Your task to perform on an android device: Add "macbook pro 13 inch" to the cart on costco, then select checkout. Image 0: 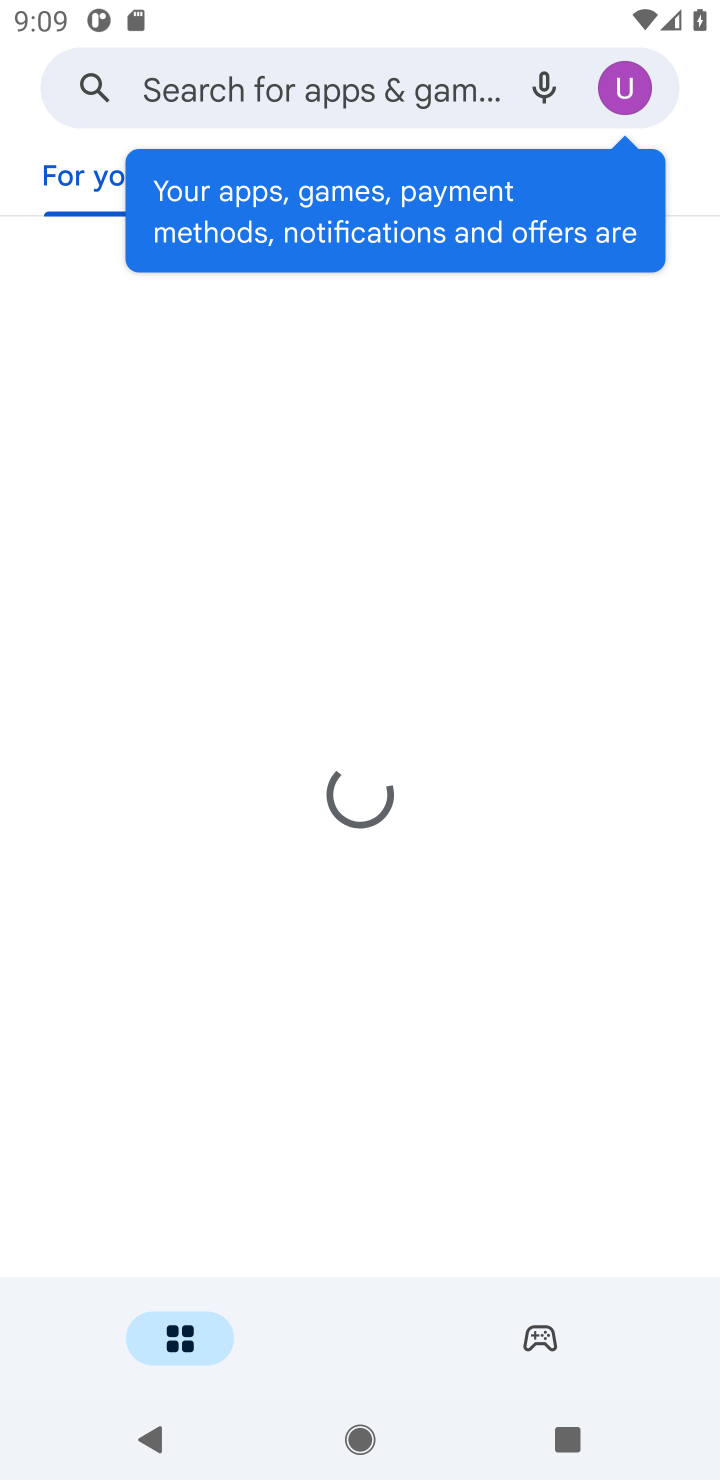
Step 0: press home button
Your task to perform on an android device: Add "macbook pro 13 inch" to the cart on costco, then select checkout. Image 1: 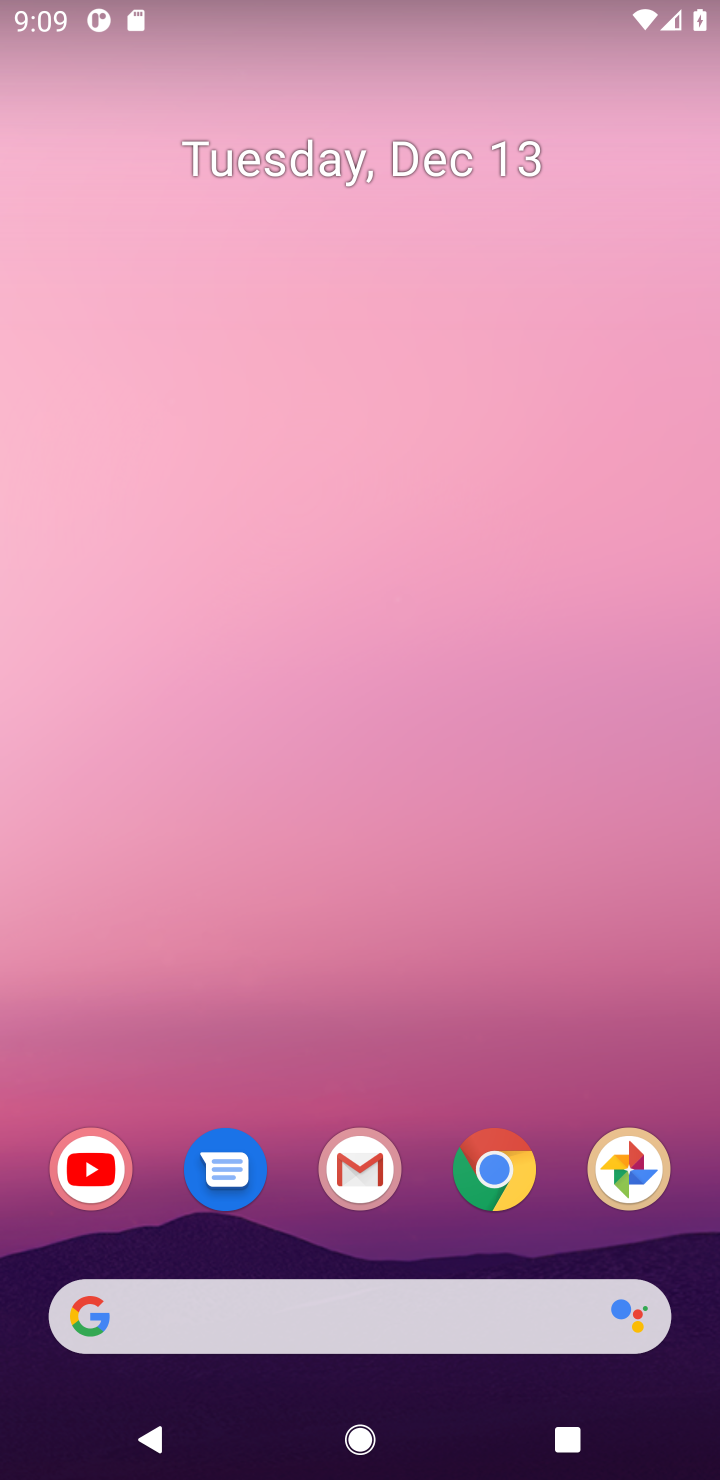
Step 1: click (487, 1190)
Your task to perform on an android device: Add "macbook pro 13 inch" to the cart on costco, then select checkout. Image 2: 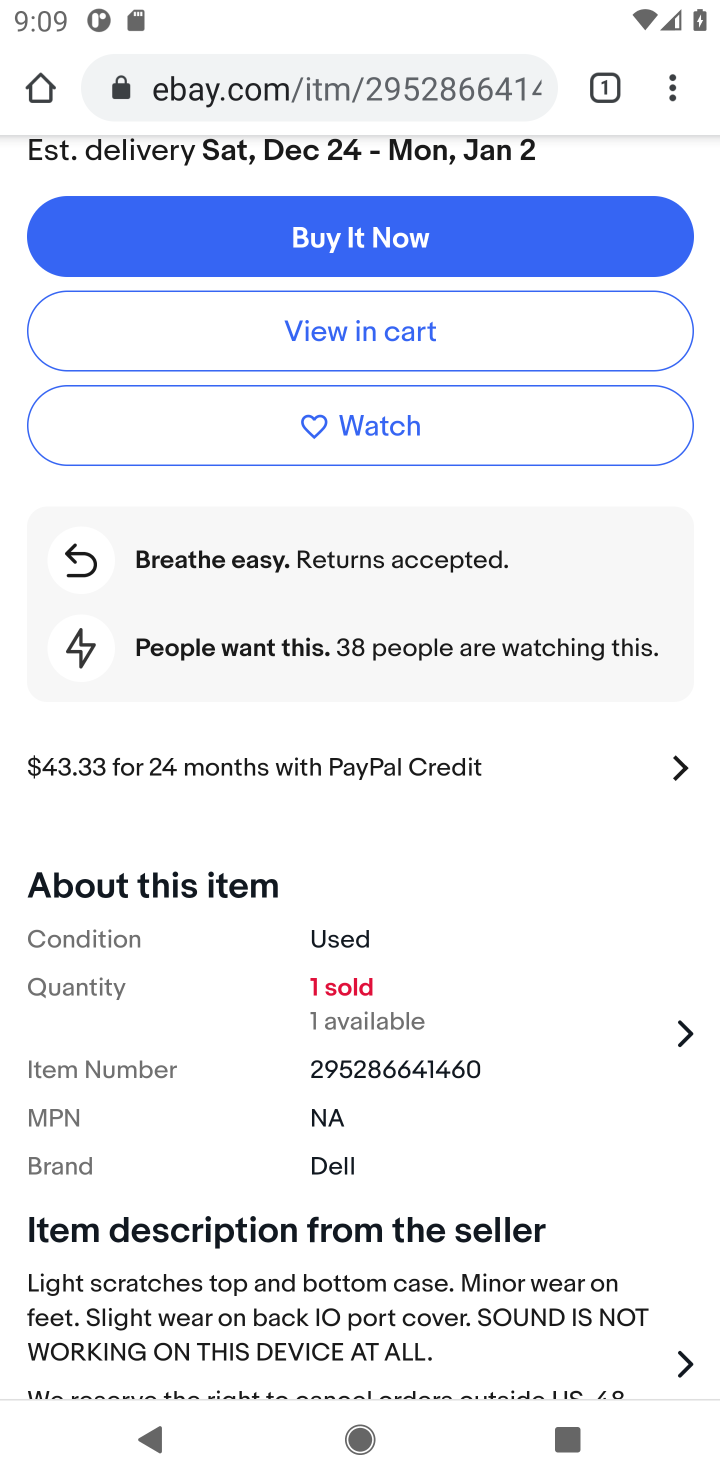
Step 2: click (252, 109)
Your task to perform on an android device: Add "macbook pro 13 inch" to the cart on costco, then select checkout. Image 3: 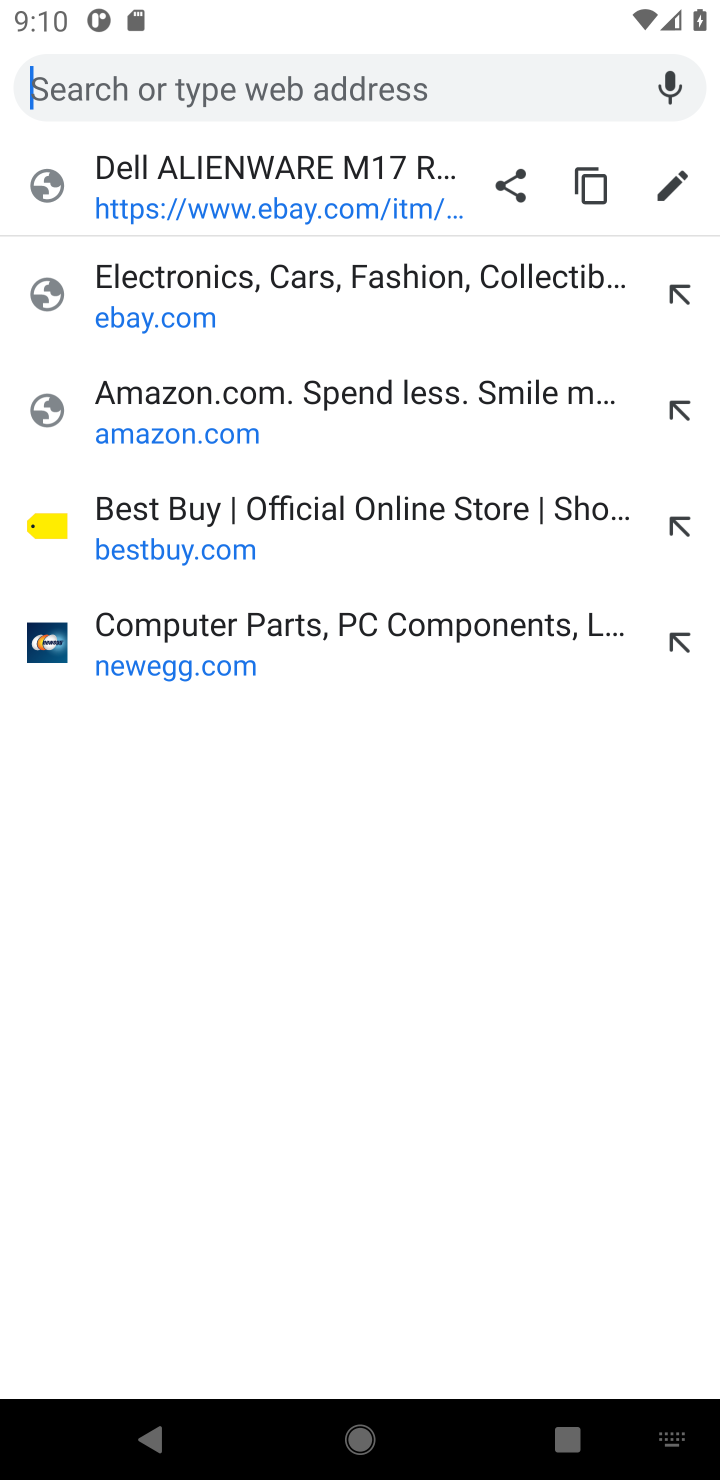
Step 3: type "costco"
Your task to perform on an android device: Add "macbook pro 13 inch" to the cart on costco, then select checkout. Image 4: 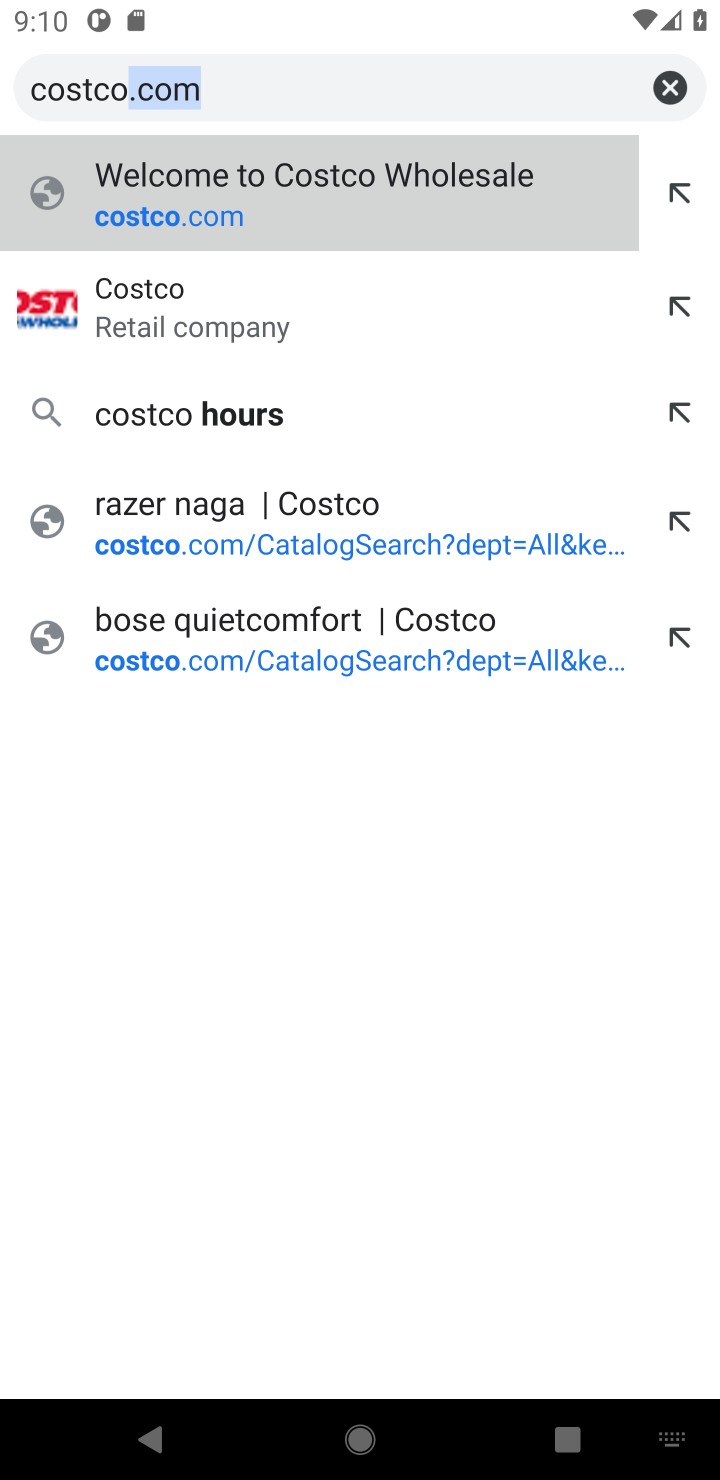
Step 4: click (274, 221)
Your task to perform on an android device: Add "macbook pro 13 inch" to the cart on costco, then select checkout. Image 5: 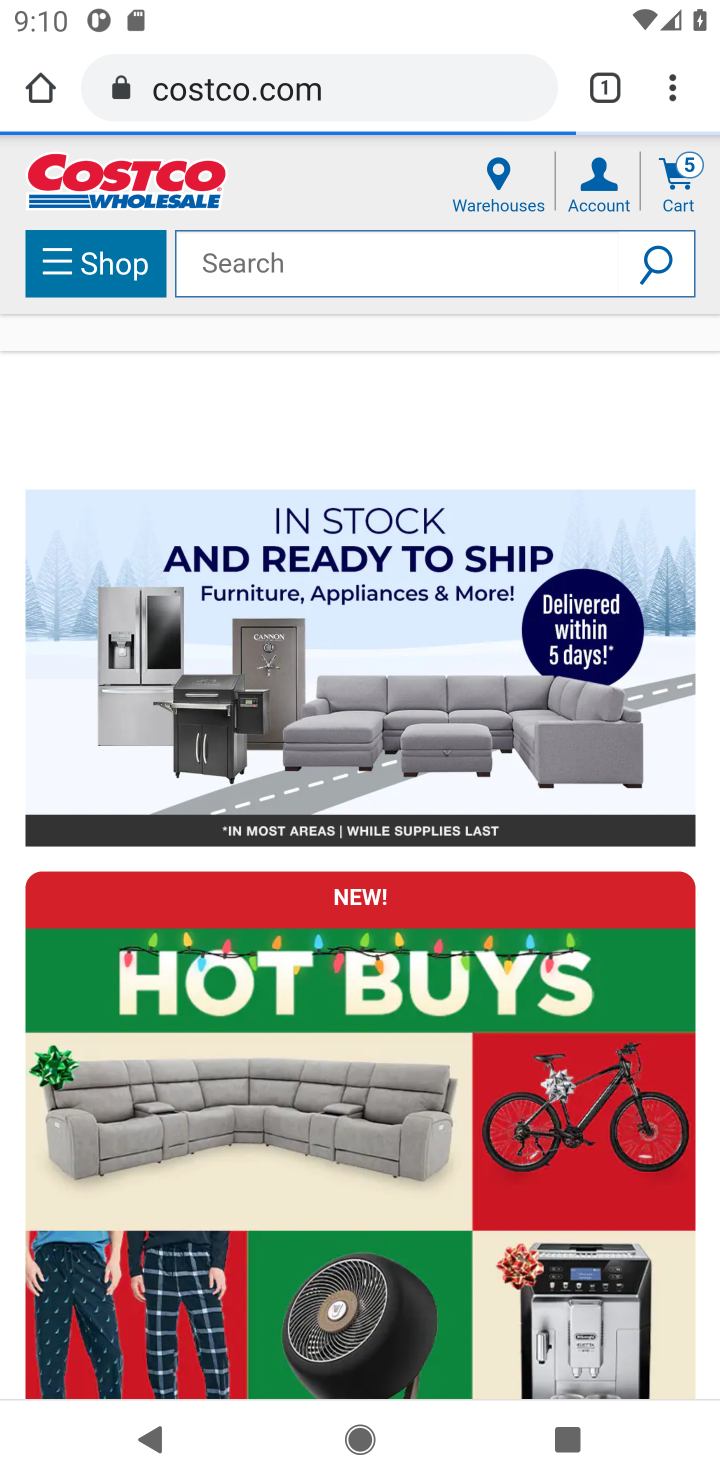
Step 5: click (391, 273)
Your task to perform on an android device: Add "macbook pro 13 inch" to the cart on costco, then select checkout. Image 6: 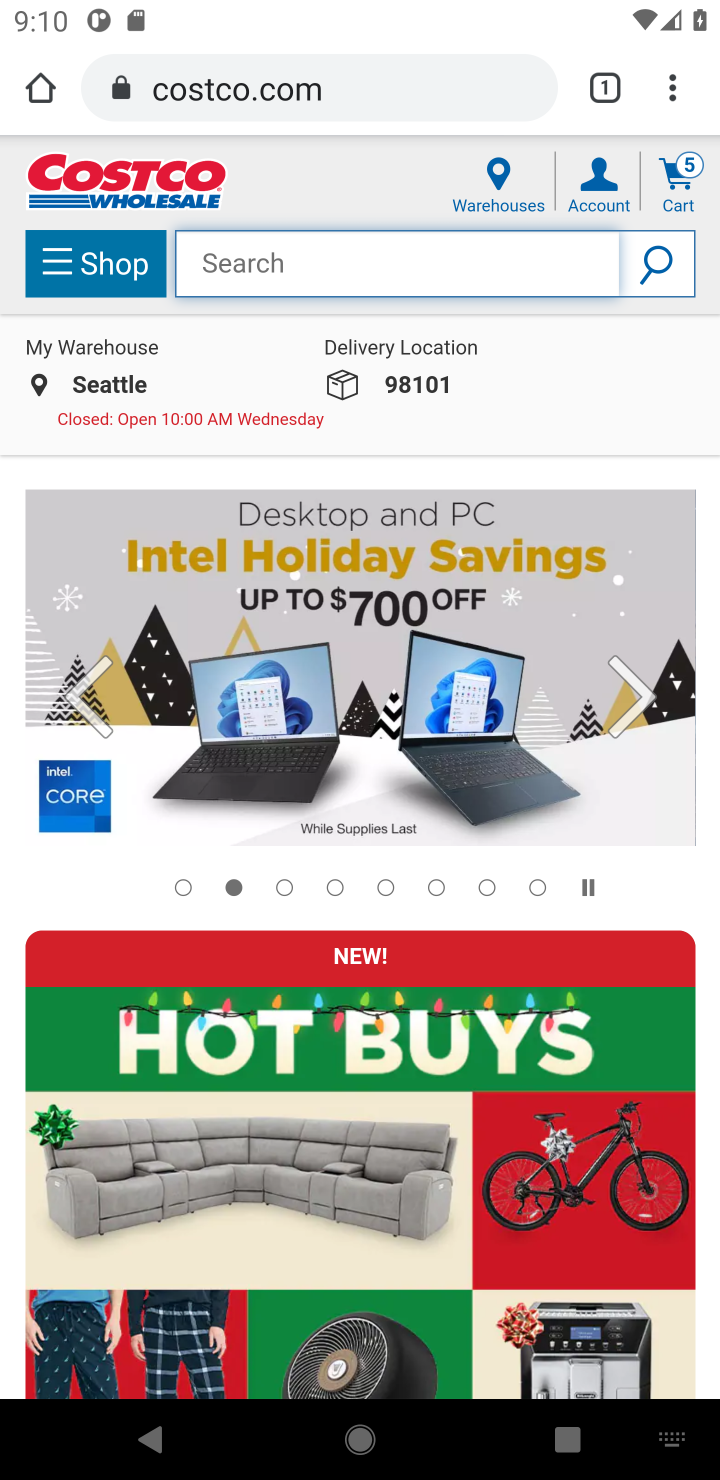
Step 6: type "macbook pro 13"
Your task to perform on an android device: Add "macbook pro 13 inch" to the cart on costco, then select checkout. Image 7: 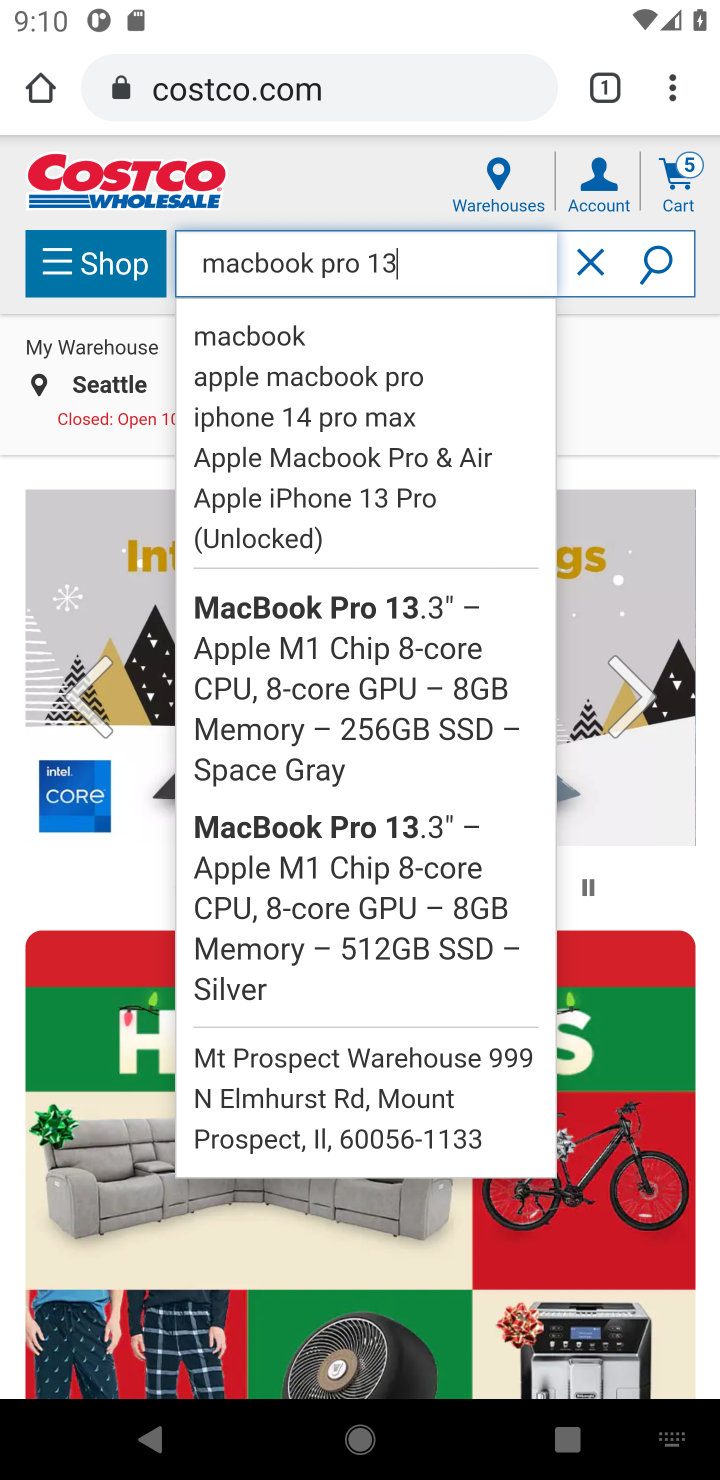
Step 7: click (641, 288)
Your task to perform on an android device: Add "macbook pro 13 inch" to the cart on costco, then select checkout. Image 8: 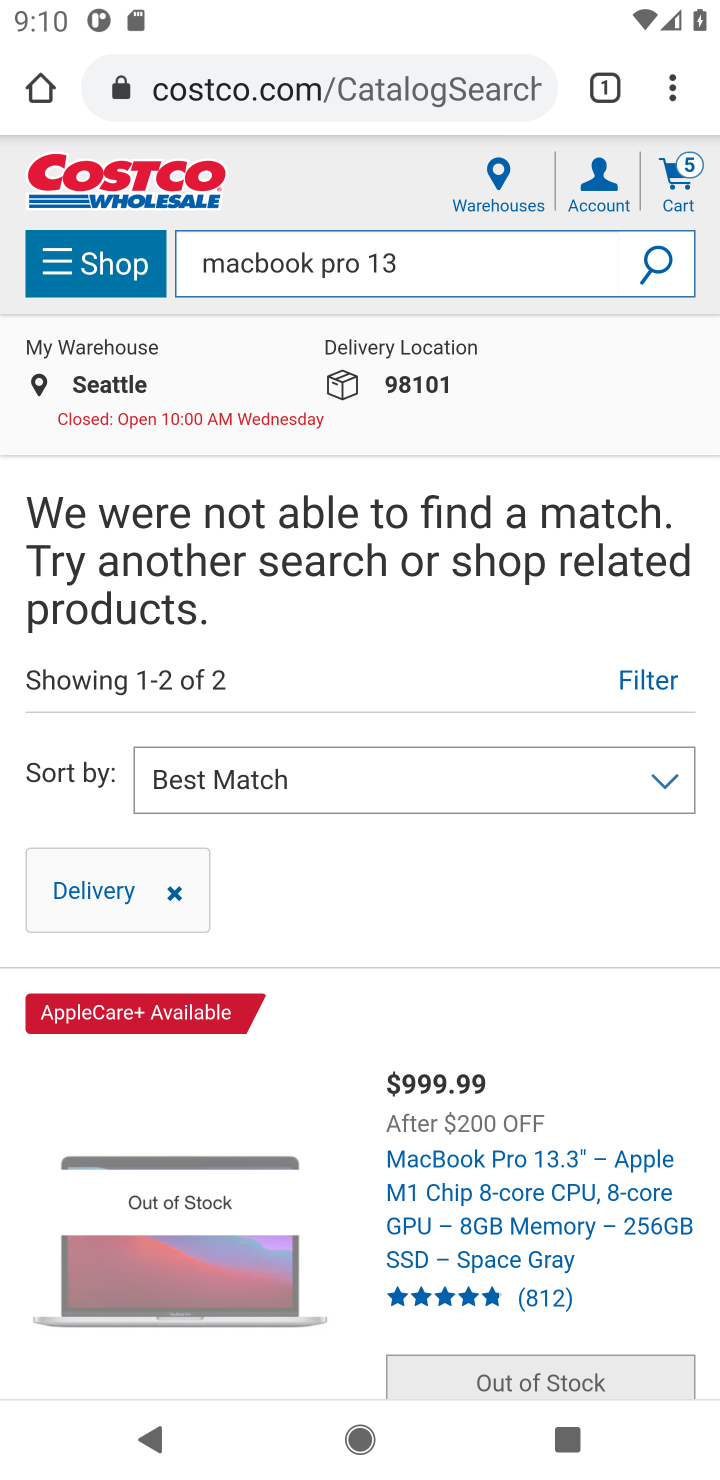
Step 8: click (458, 1211)
Your task to perform on an android device: Add "macbook pro 13 inch" to the cart on costco, then select checkout. Image 9: 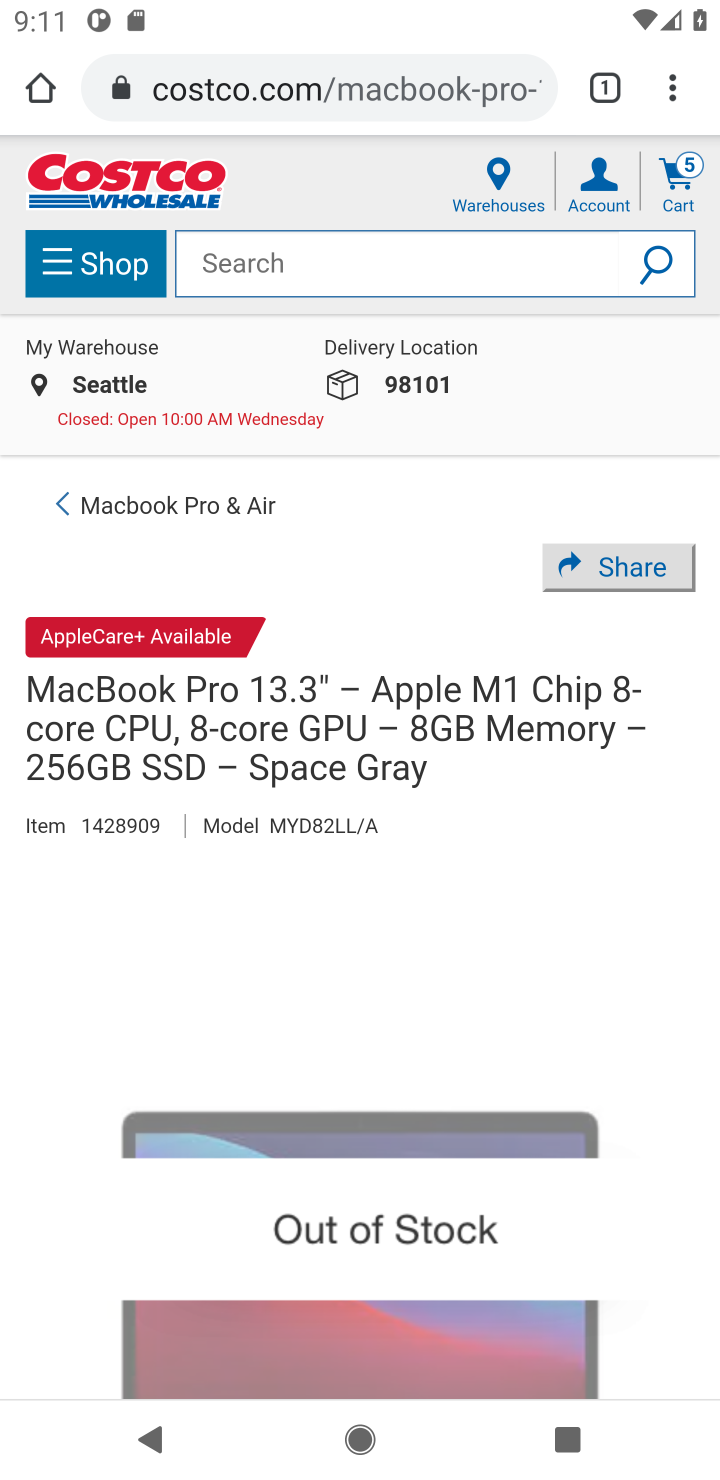
Step 9: task complete